Your task to perform on an android device: Show the shopping cart on walmart.com. Add "apple airpods" to the cart on walmart.com, then select checkout. Image 0: 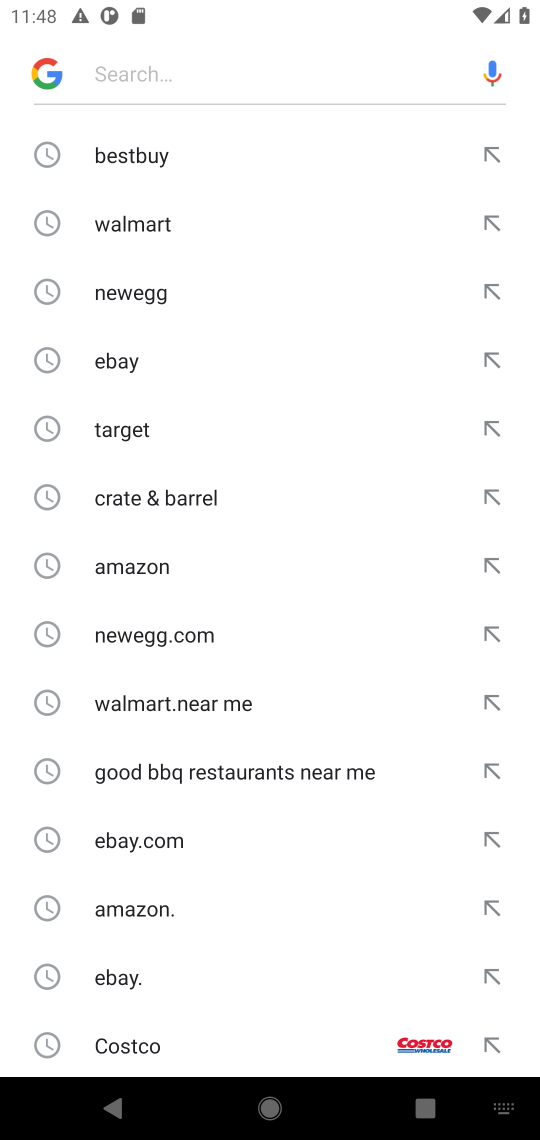
Step 0: press home button
Your task to perform on an android device: Show the shopping cart on walmart.com. Add "apple airpods" to the cart on walmart.com, then select checkout. Image 1: 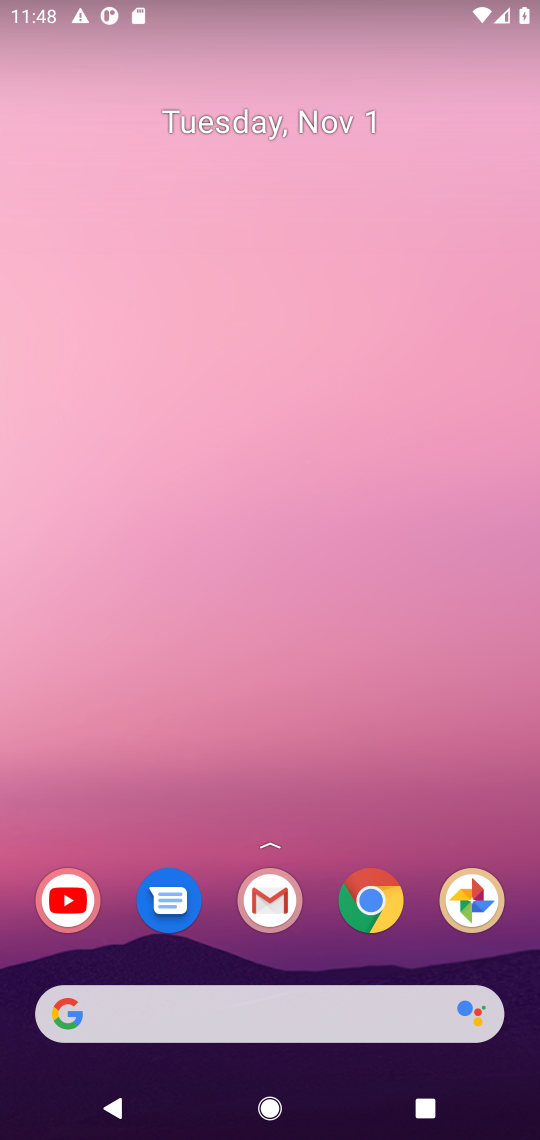
Step 1: click (371, 898)
Your task to perform on an android device: Show the shopping cart on walmart.com. Add "apple airpods" to the cart on walmart.com, then select checkout. Image 2: 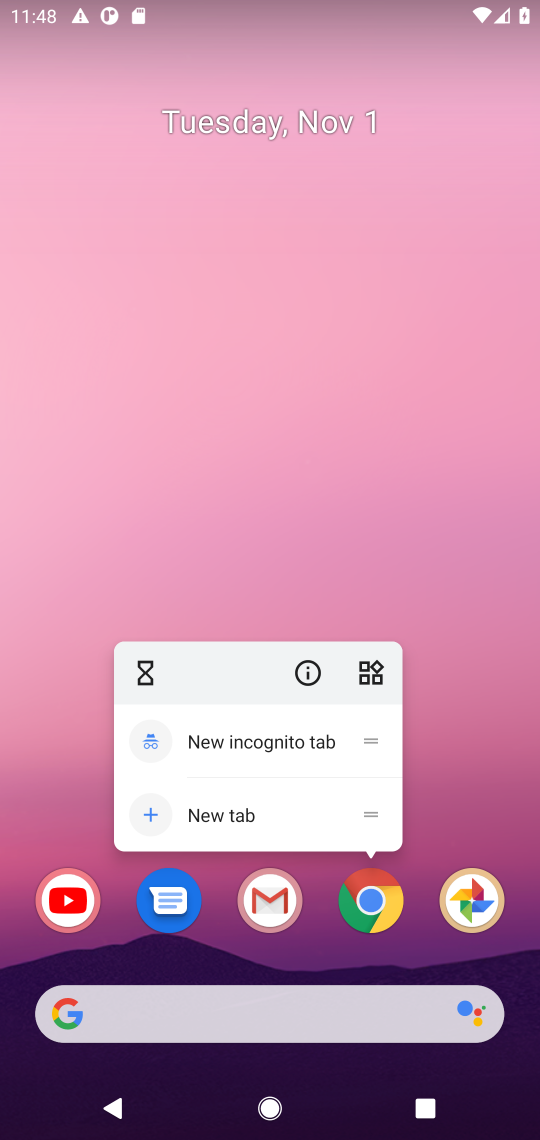
Step 2: click (371, 898)
Your task to perform on an android device: Show the shopping cart on walmart.com. Add "apple airpods" to the cart on walmart.com, then select checkout. Image 3: 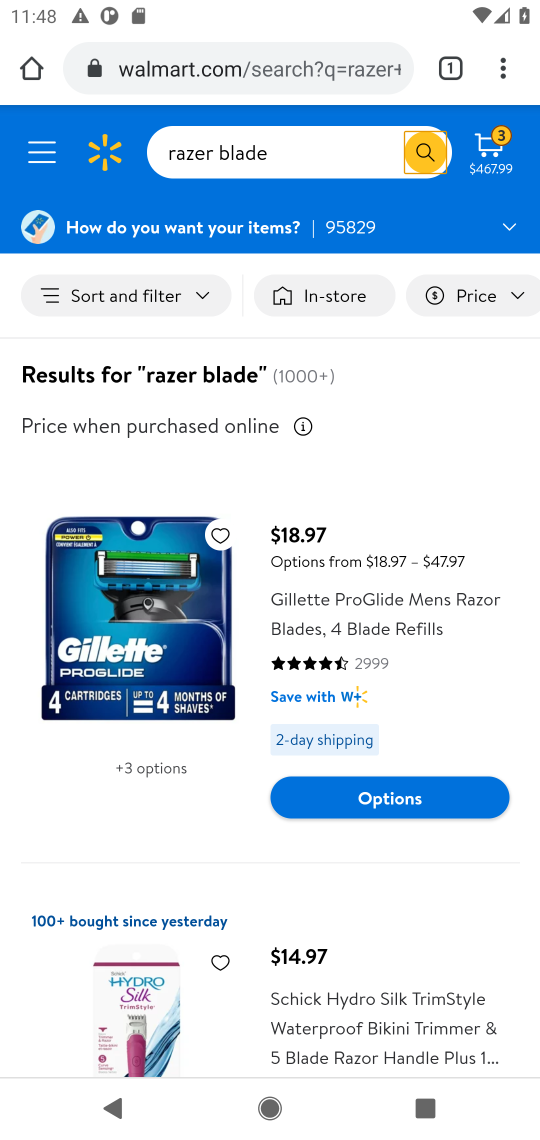
Step 3: click (302, 151)
Your task to perform on an android device: Show the shopping cart on walmart.com. Add "apple airpods" to the cart on walmart.com, then select checkout. Image 4: 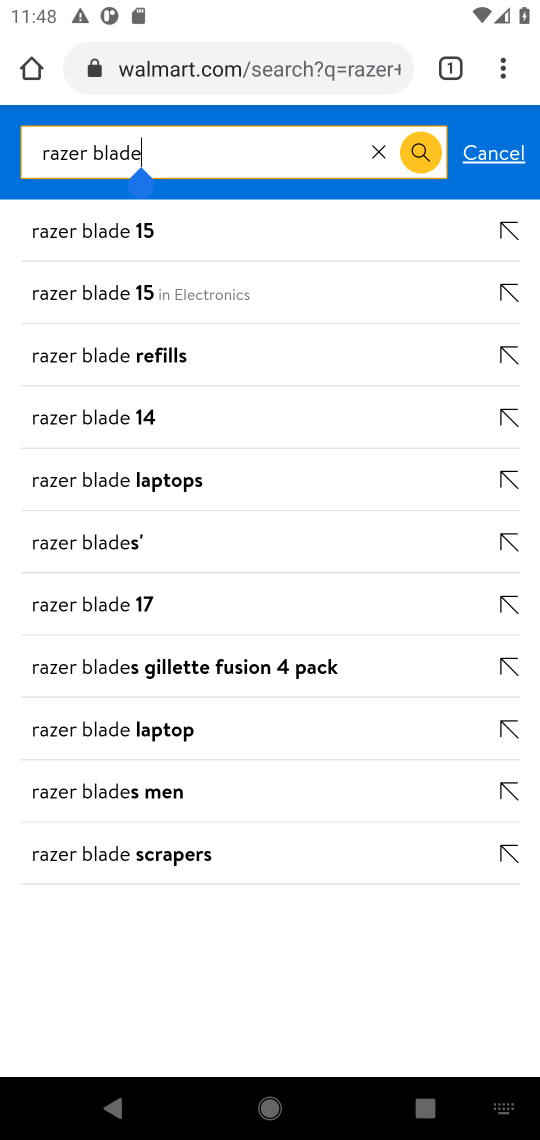
Step 4: click (499, 150)
Your task to perform on an android device: Show the shopping cart on walmart.com. Add "apple airpods" to the cart on walmart.com, then select checkout. Image 5: 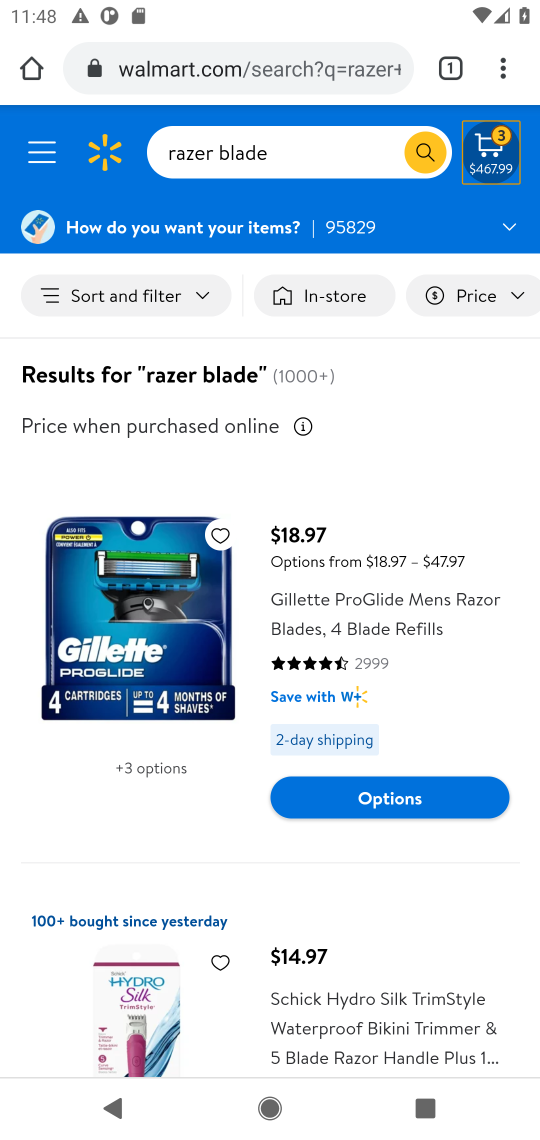
Step 5: click (499, 150)
Your task to perform on an android device: Show the shopping cart on walmart.com. Add "apple airpods" to the cart on walmart.com, then select checkout. Image 6: 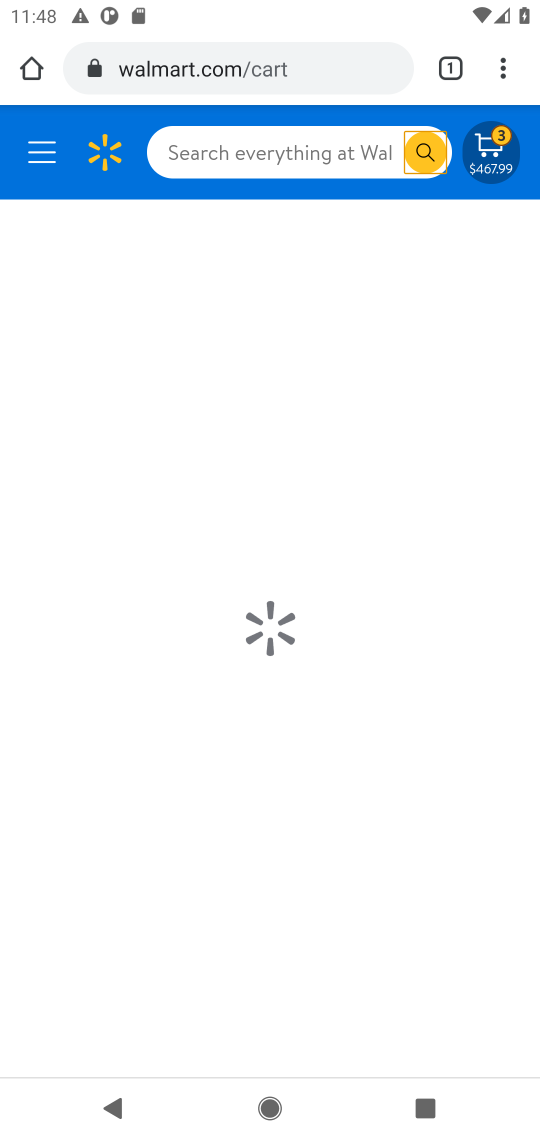
Step 6: click (499, 150)
Your task to perform on an android device: Show the shopping cart on walmart.com. Add "apple airpods" to the cart on walmart.com, then select checkout. Image 7: 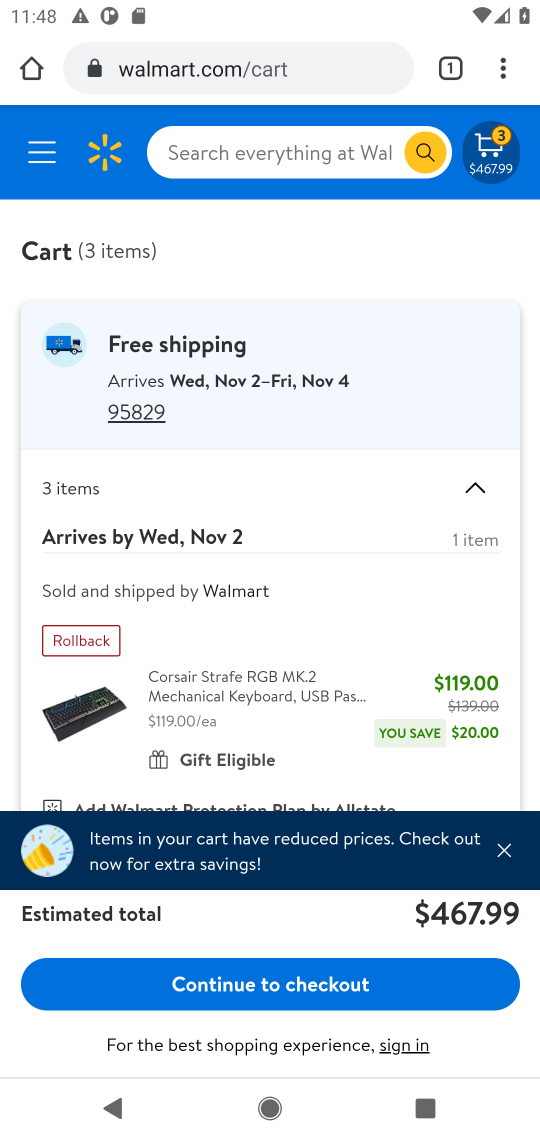
Step 7: click (234, 159)
Your task to perform on an android device: Show the shopping cart on walmart.com. Add "apple airpods" to the cart on walmart.com, then select checkout. Image 8: 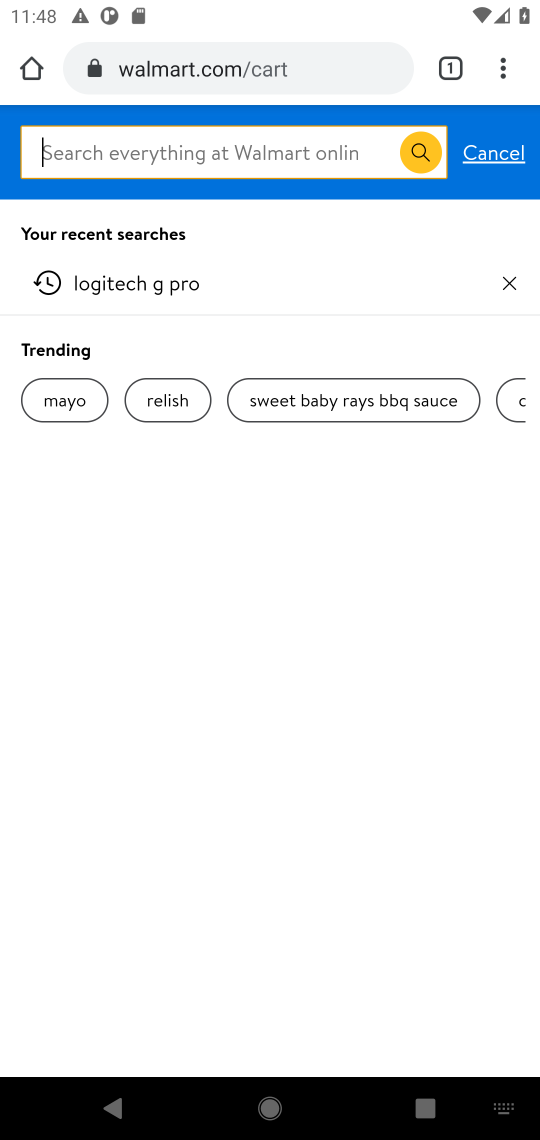
Step 8: type "apple airpods"
Your task to perform on an android device: Show the shopping cart on walmart.com. Add "apple airpods" to the cart on walmart.com, then select checkout. Image 9: 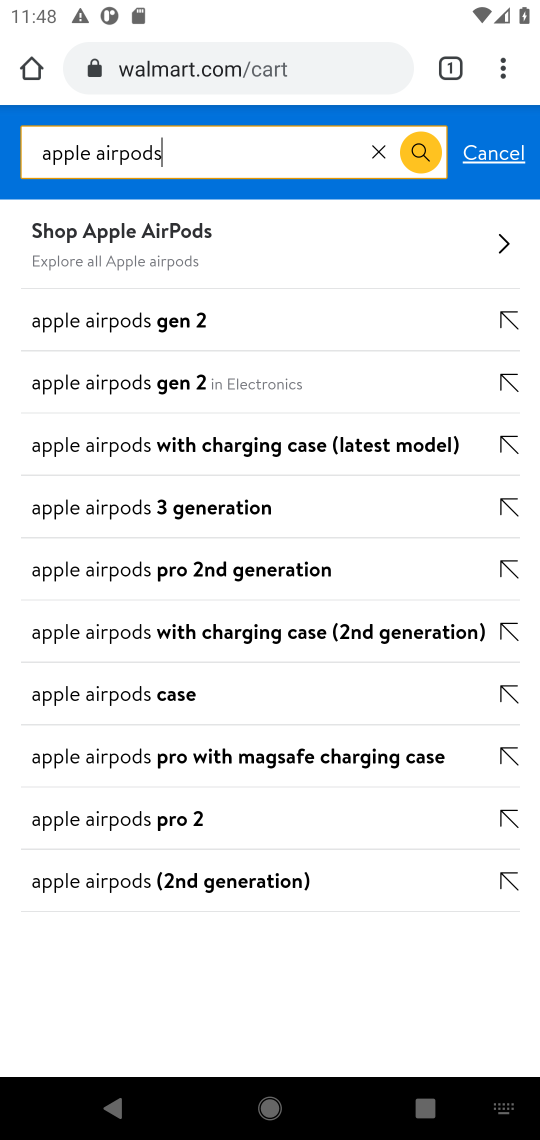
Step 9: type ""
Your task to perform on an android device: Show the shopping cart on walmart.com. Add "apple airpods" to the cart on walmart.com, then select checkout. Image 10: 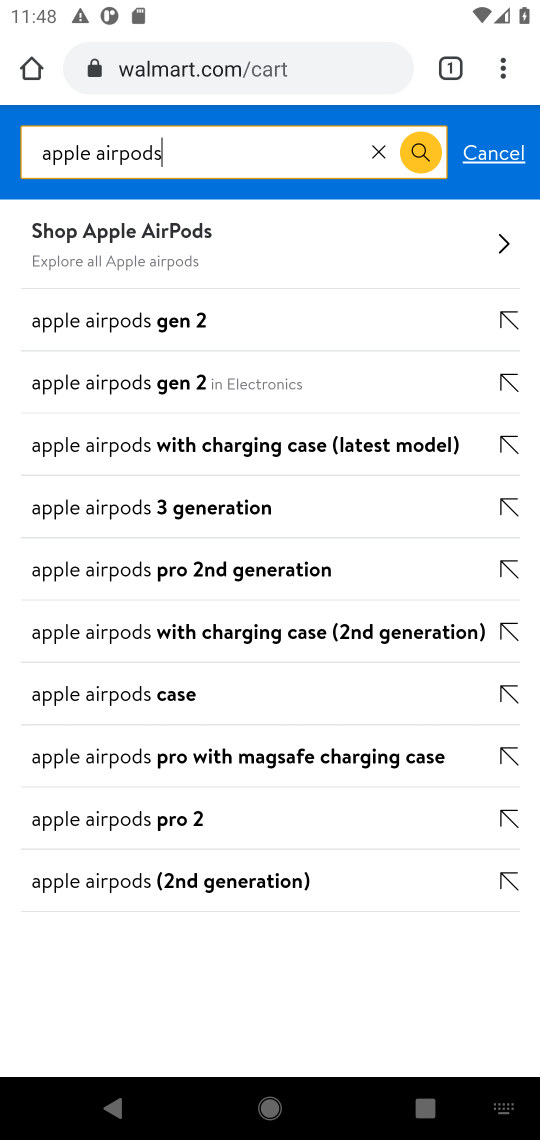
Step 10: click (418, 153)
Your task to perform on an android device: Show the shopping cart on walmart.com. Add "apple airpods" to the cart on walmart.com, then select checkout. Image 11: 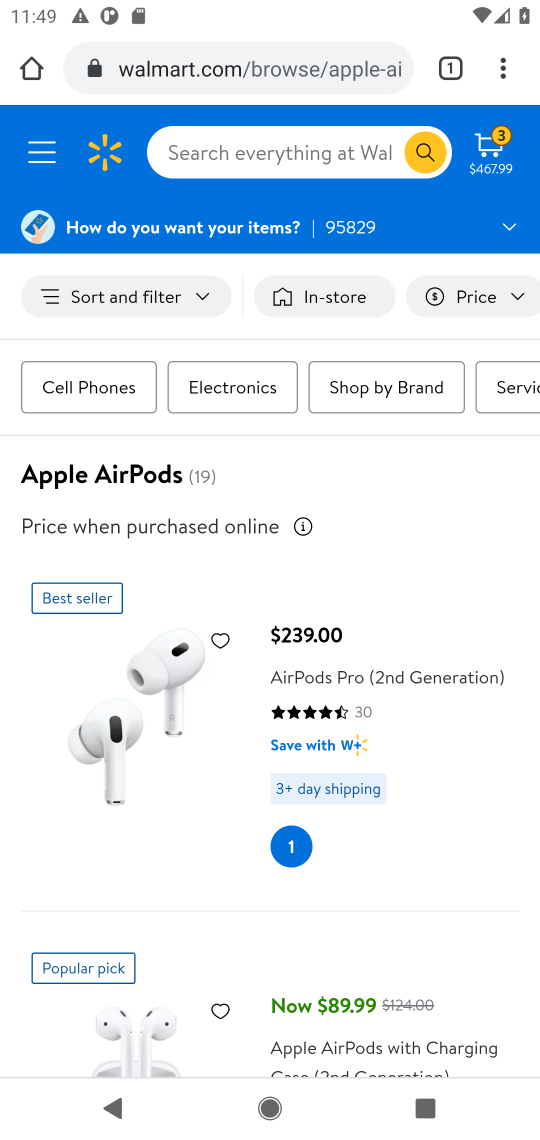
Step 11: drag from (200, 930) to (217, 438)
Your task to perform on an android device: Show the shopping cart on walmart.com. Add "apple airpods" to the cart on walmart.com, then select checkout. Image 12: 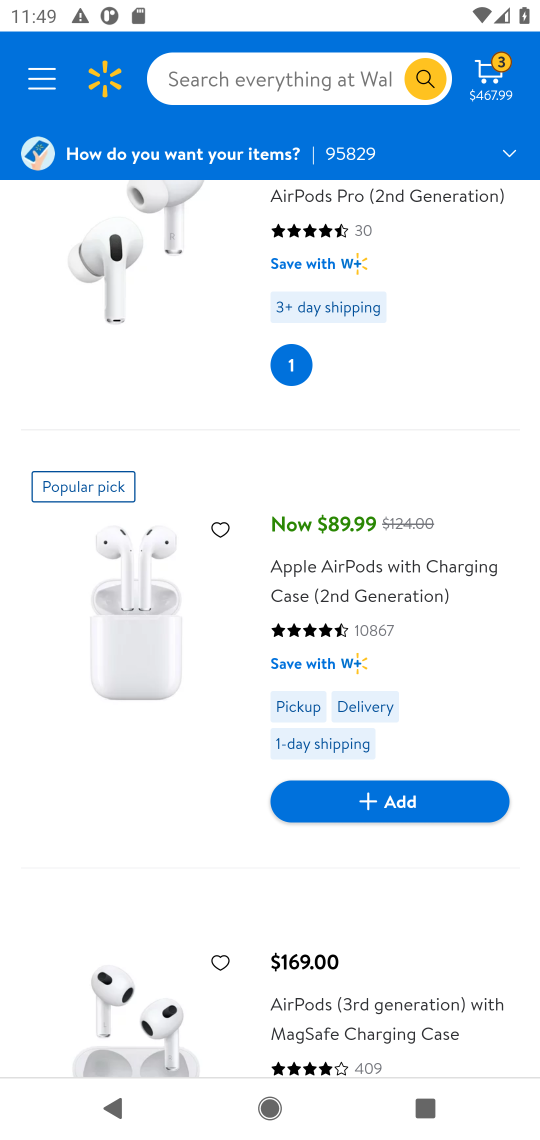
Step 12: click (362, 789)
Your task to perform on an android device: Show the shopping cart on walmart.com. Add "apple airpods" to the cart on walmart.com, then select checkout. Image 13: 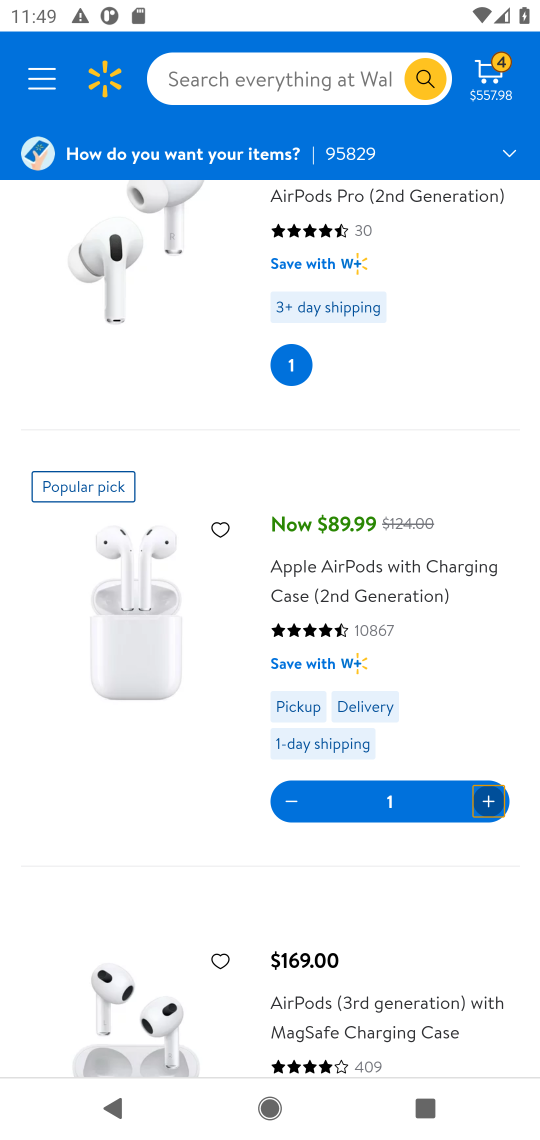
Step 13: click (494, 82)
Your task to perform on an android device: Show the shopping cart on walmart.com. Add "apple airpods" to the cart on walmart.com, then select checkout. Image 14: 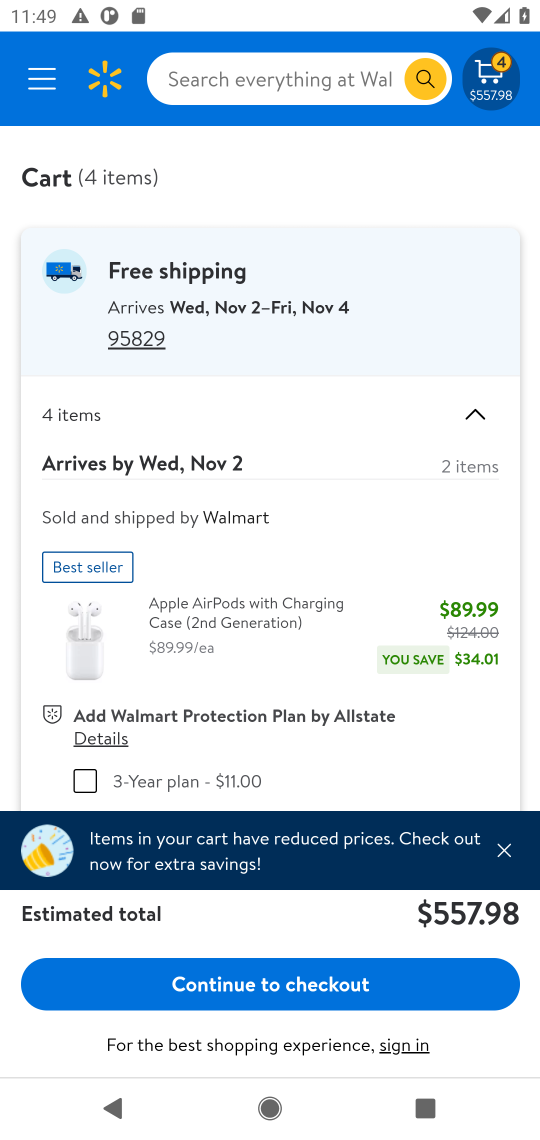
Step 14: click (102, 985)
Your task to perform on an android device: Show the shopping cart on walmart.com. Add "apple airpods" to the cart on walmart.com, then select checkout. Image 15: 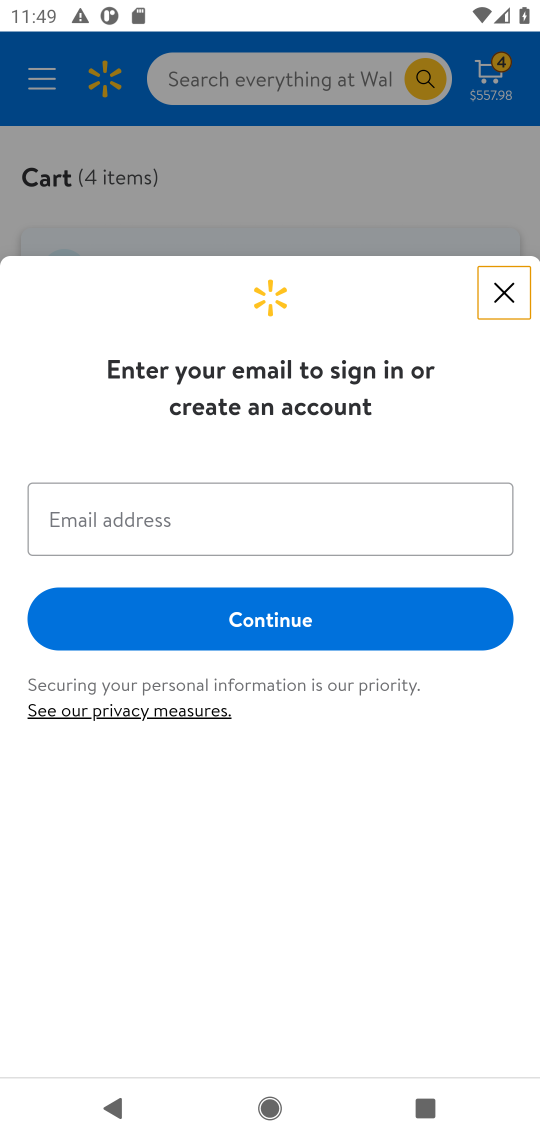
Step 15: task complete